Your task to perform on an android device: Open network settings Image 0: 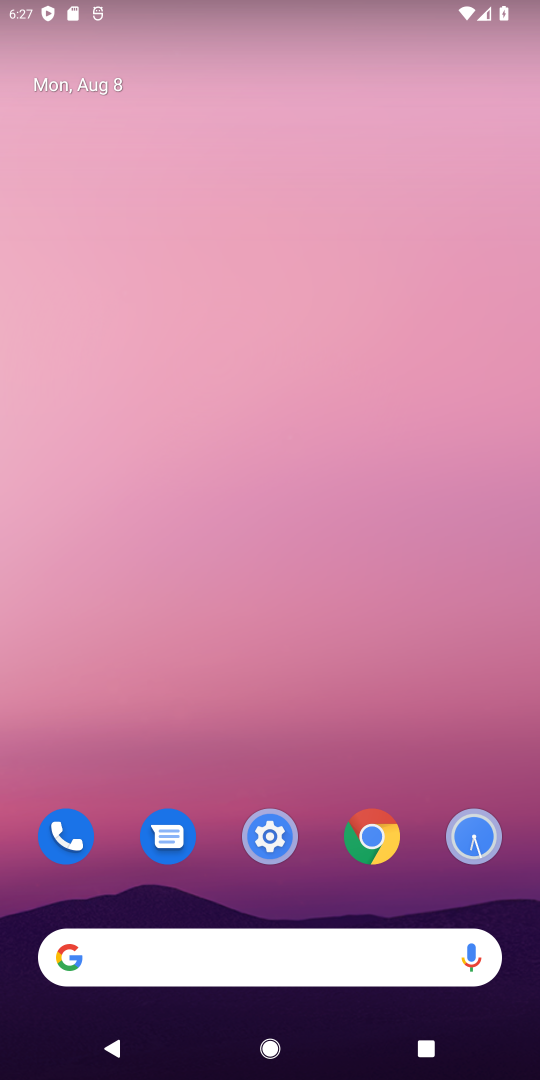
Step 0: press home button
Your task to perform on an android device: Open network settings Image 1: 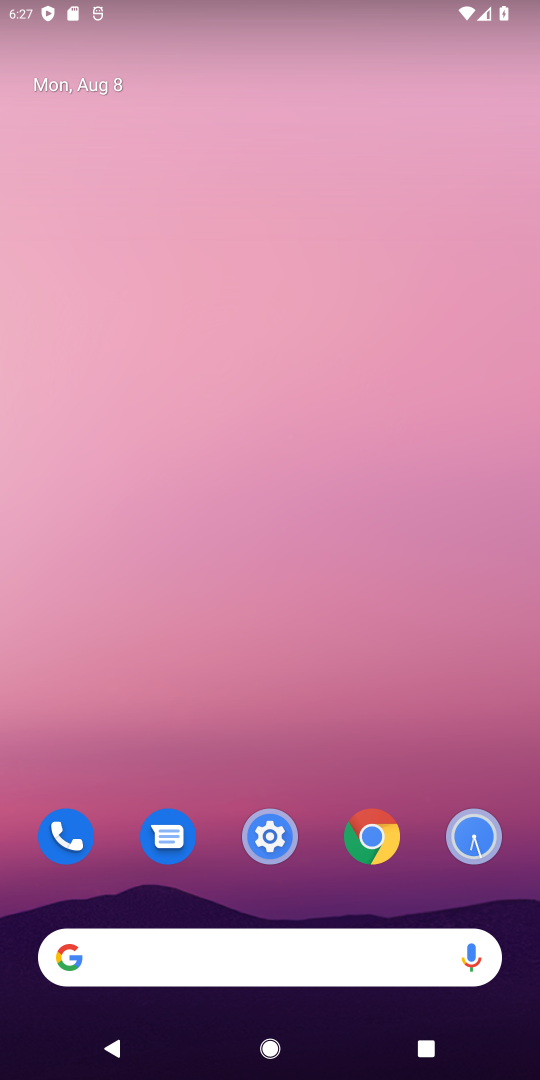
Step 1: drag from (376, 741) to (329, 124)
Your task to perform on an android device: Open network settings Image 2: 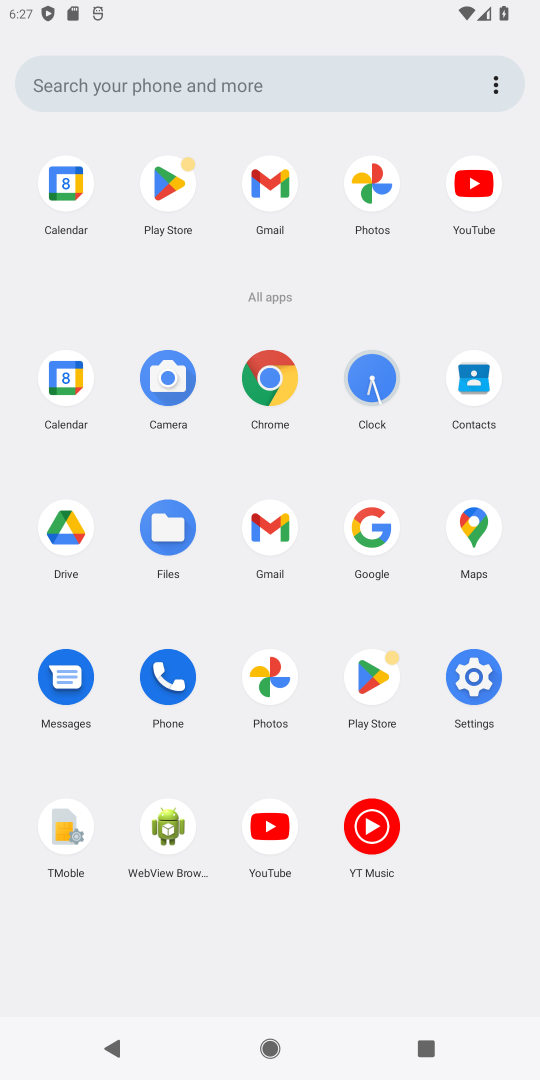
Step 2: click (487, 681)
Your task to perform on an android device: Open network settings Image 3: 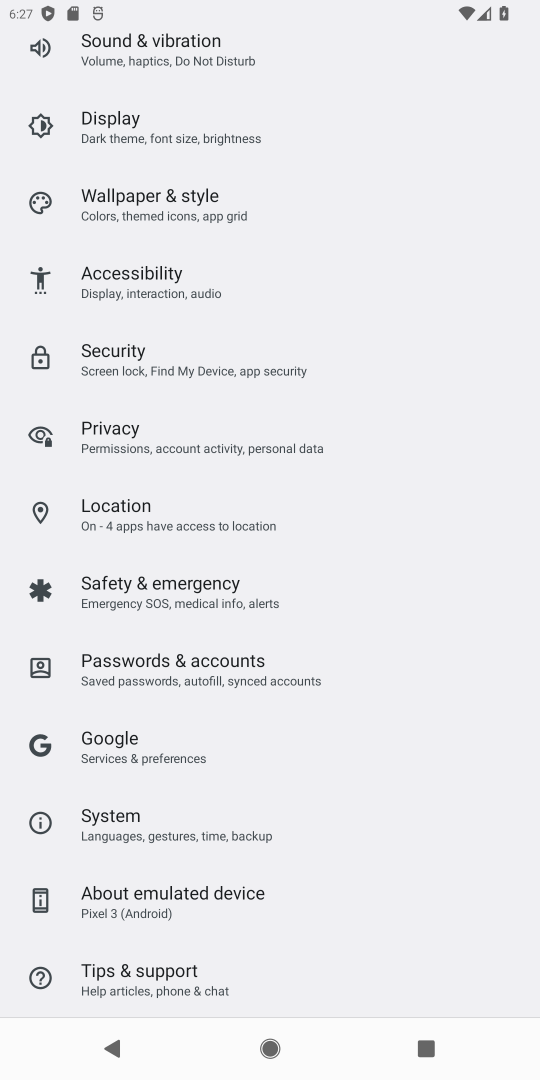
Step 3: drag from (350, 280) to (374, 1052)
Your task to perform on an android device: Open network settings Image 4: 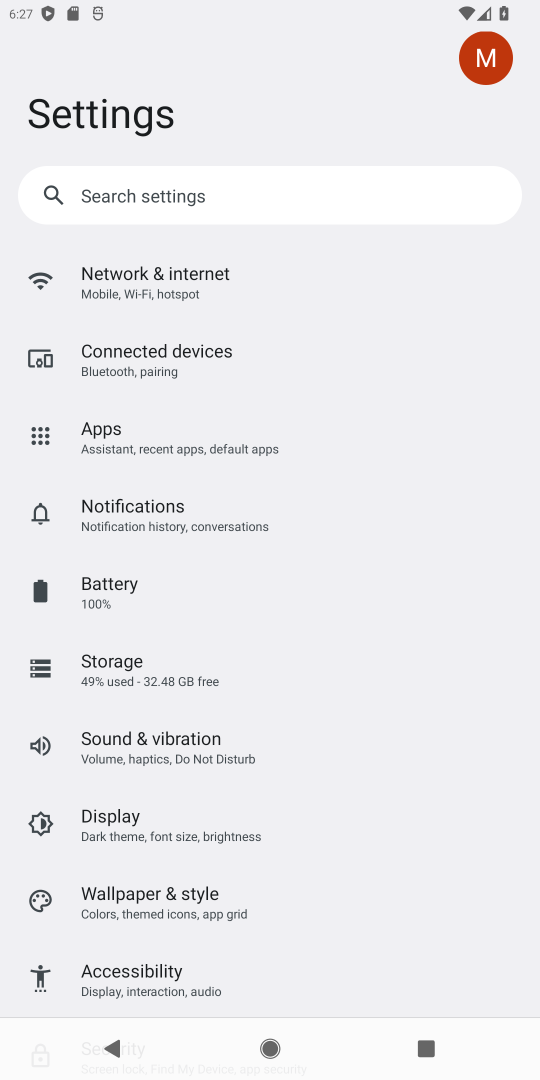
Step 4: click (273, 283)
Your task to perform on an android device: Open network settings Image 5: 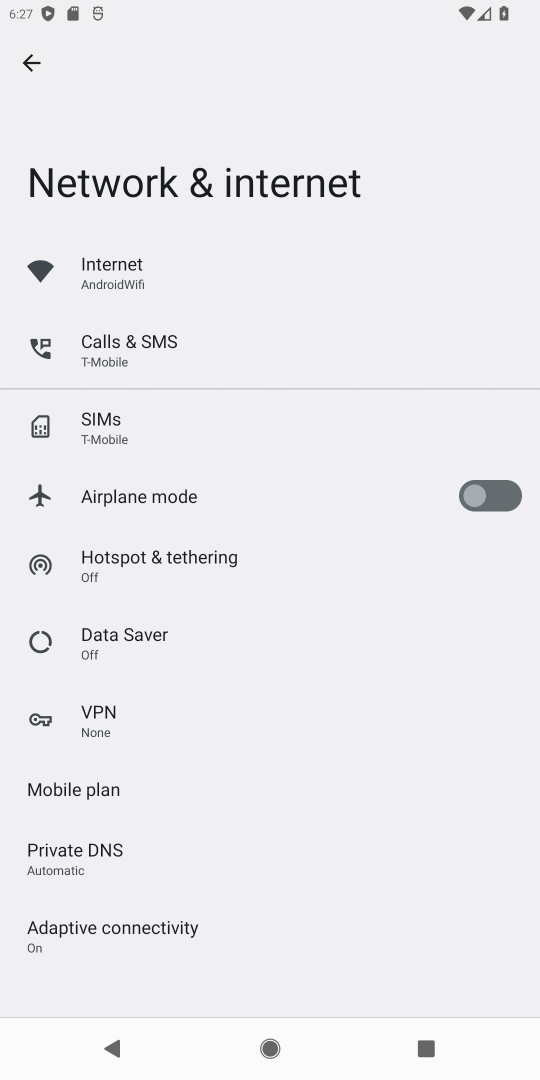
Step 5: click (218, 285)
Your task to perform on an android device: Open network settings Image 6: 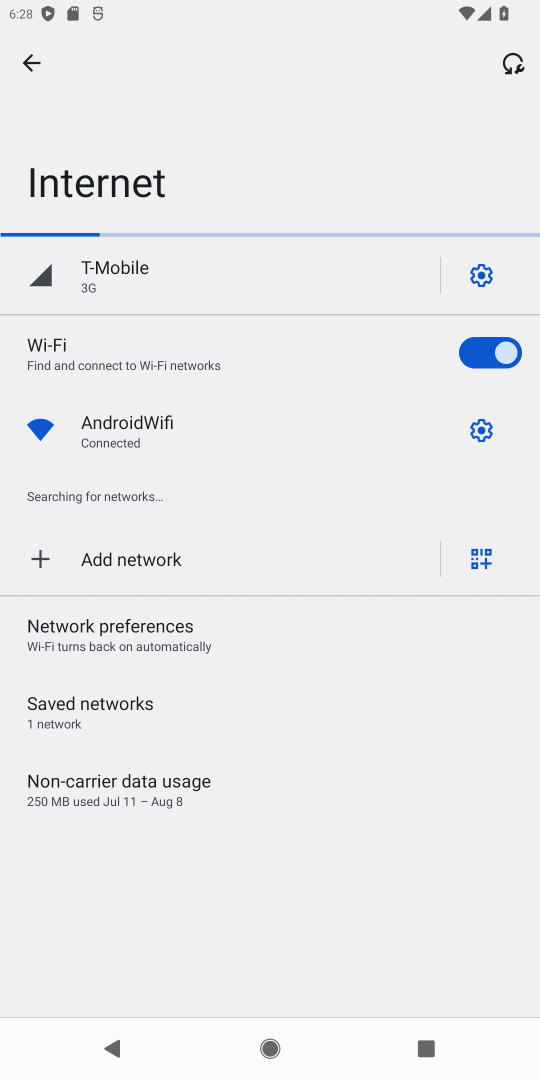
Step 6: task complete